Your task to perform on an android device: set the timer Image 0: 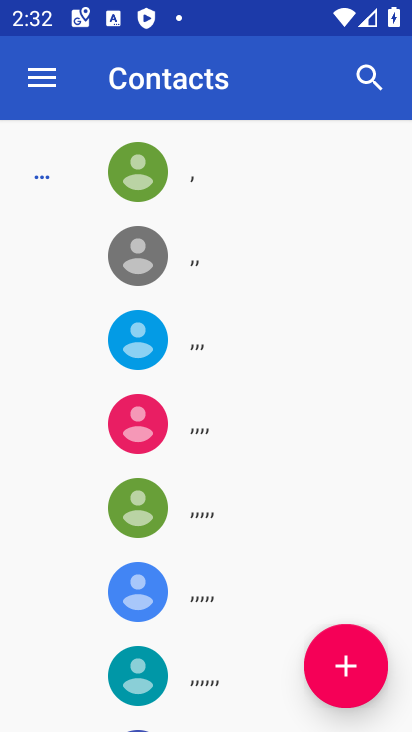
Step 0: press home button
Your task to perform on an android device: set the timer Image 1: 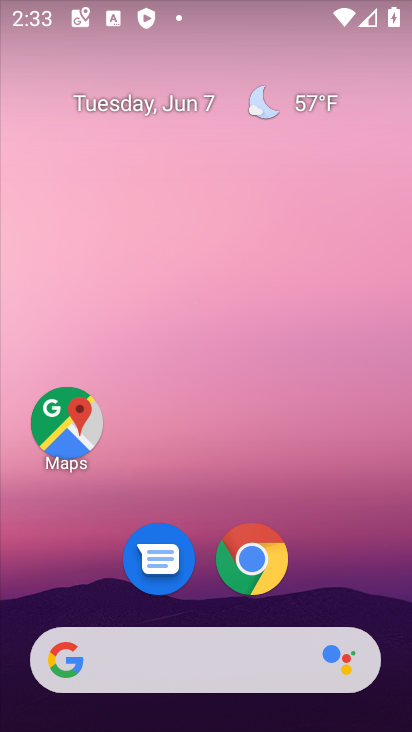
Step 1: drag from (45, 621) to (367, 130)
Your task to perform on an android device: set the timer Image 2: 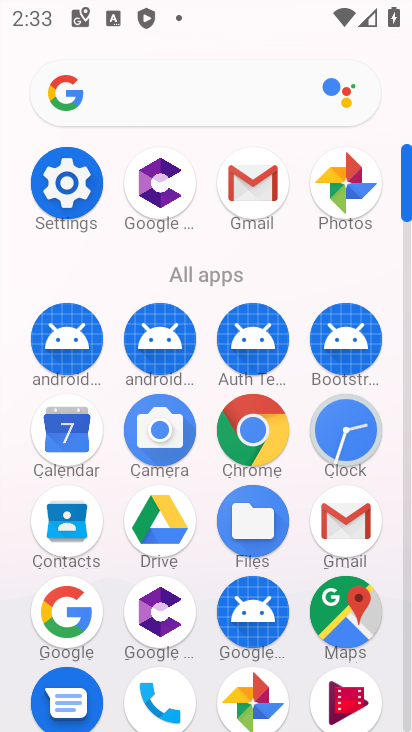
Step 2: click (351, 442)
Your task to perform on an android device: set the timer Image 3: 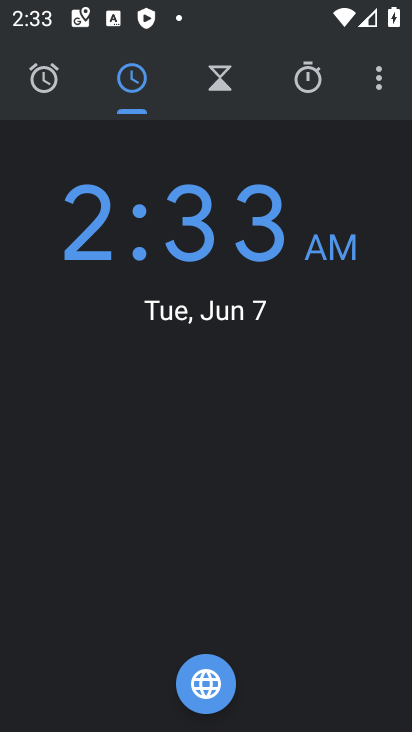
Step 3: click (232, 74)
Your task to perform on an android device: set the timer Image 4: 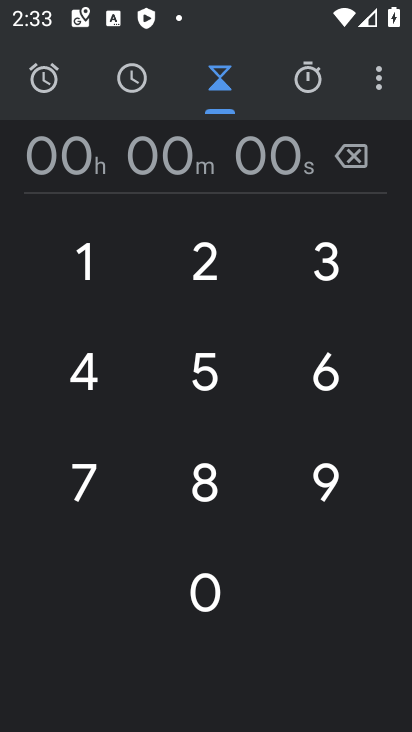
Step 4: click (78, 272)
Your task to perform on an android device: set the timer Image 5: 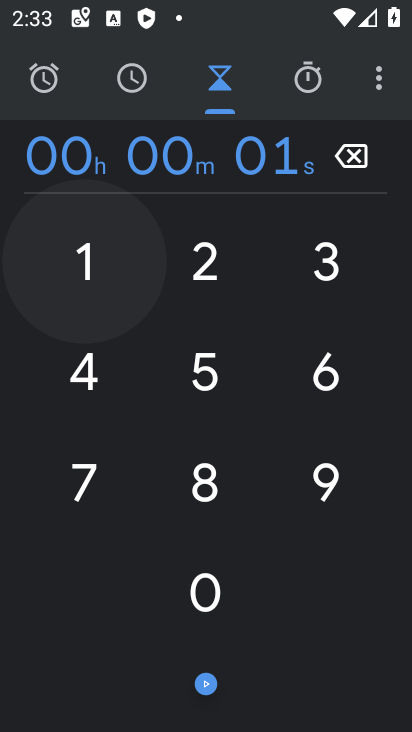
Step 5: click (202, 596)
Your task to perform on an android device: set the timer Image 6: 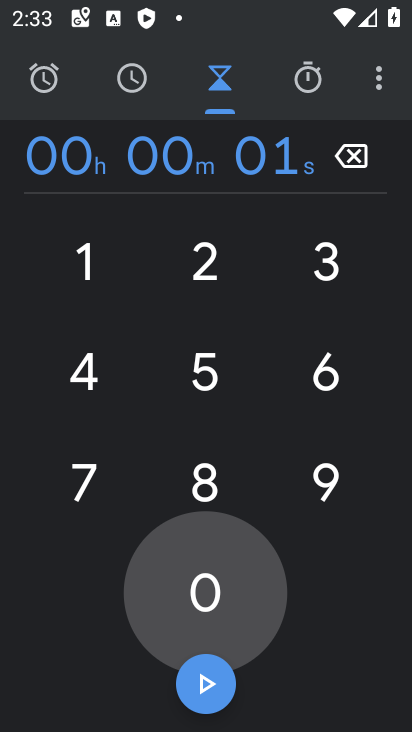
Step 6: click (203, 595)
Your task to perform on an android device: set the timer Image 7: 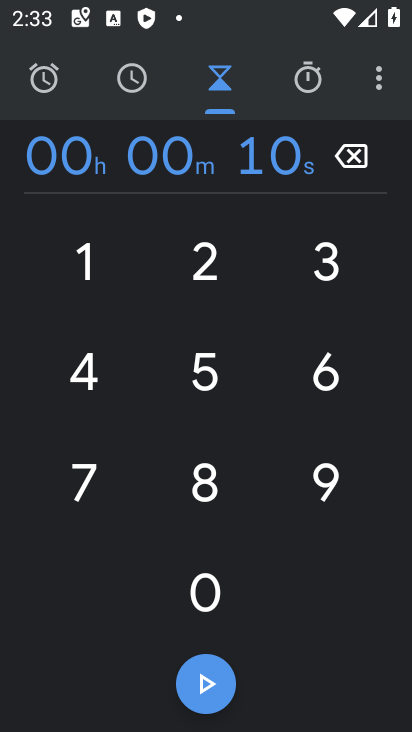
Step 7: click (203, 589)
Your task to perform on an android device: set the timer Image 8: 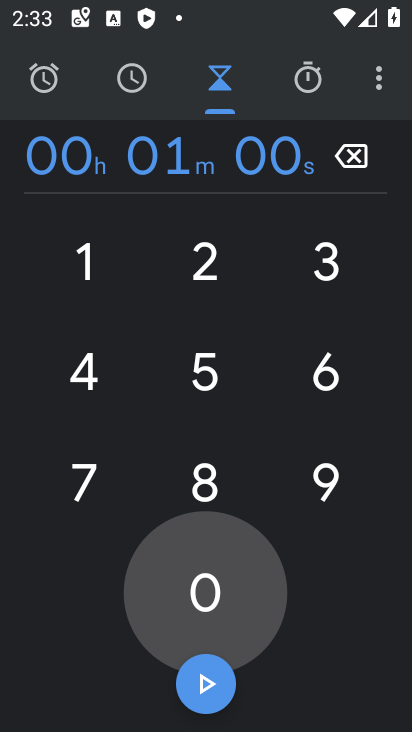
Step 8: click (204, 587)
Your task to perform on an android device: set the timer Image 9: 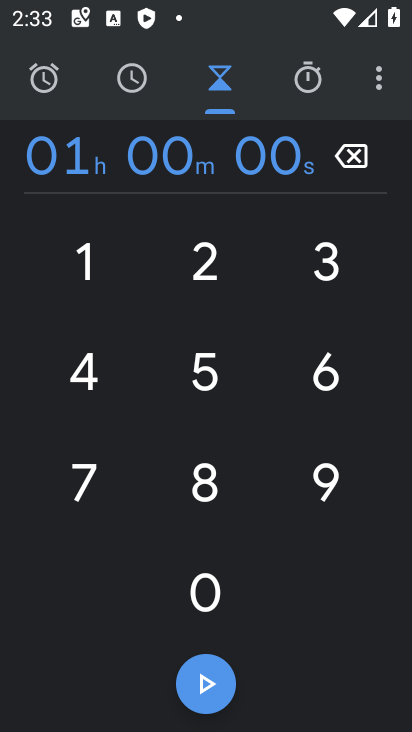
Step 9: click (197, 687)
Your task to perform on an android device: set the timer Image 10: 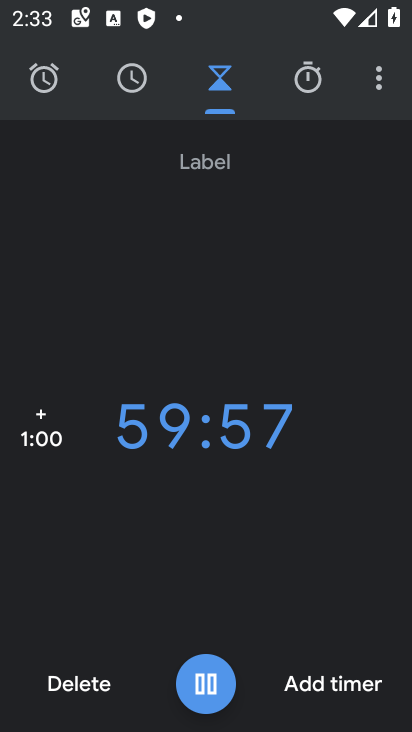
Step 10: task complete